Your task to perform on an android device: Search for Mexican restaurants on Maps Image 0: 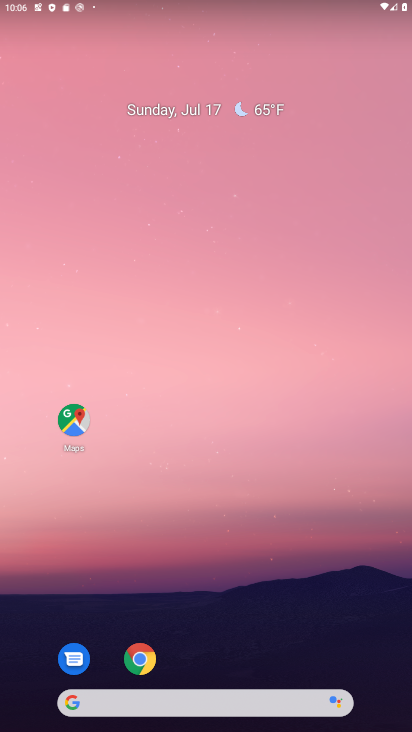
Step 0: click (69, 416)
Your task to perform on an android device: Search for Mexican restaurants on Maps Image 1: 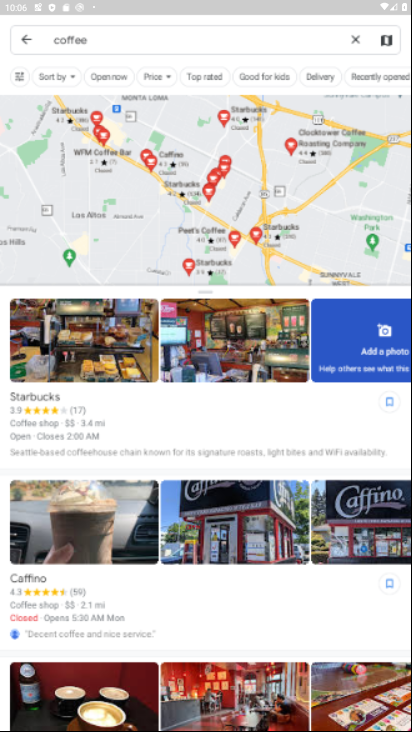
Step 1: click (359, 40)
Your task to perform on an android device: Search for Mexican restaurants on Maps Image 2: 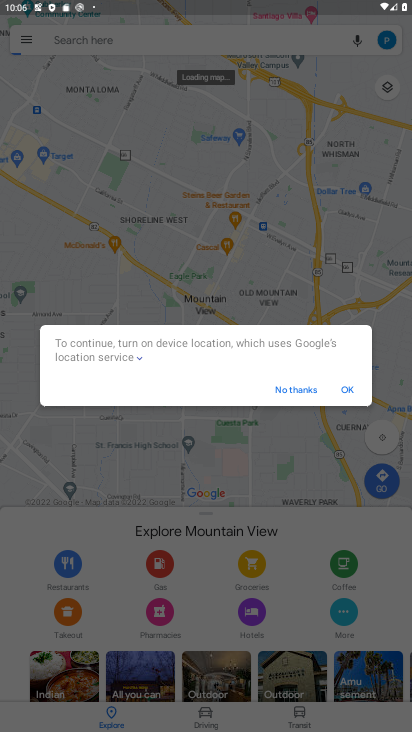
Step 2: click (345, 392)
Your task to perform on an android device: Search for Mexican restaurants on Maps Image 3: 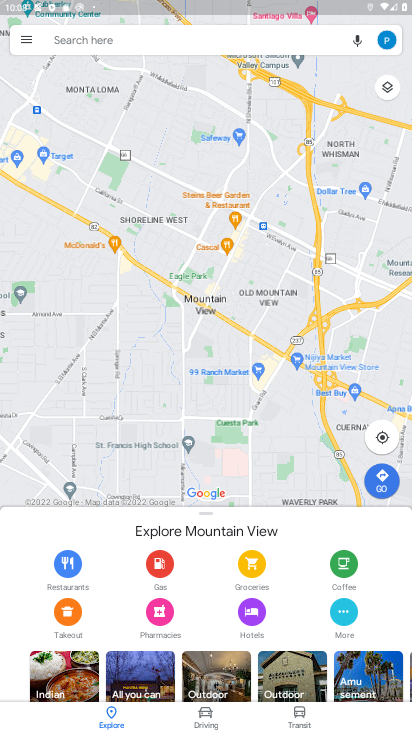
Step 3: click (155, 32)
Your task to perform on an android device: Search for Mexican restaurants on Maps Image 4: 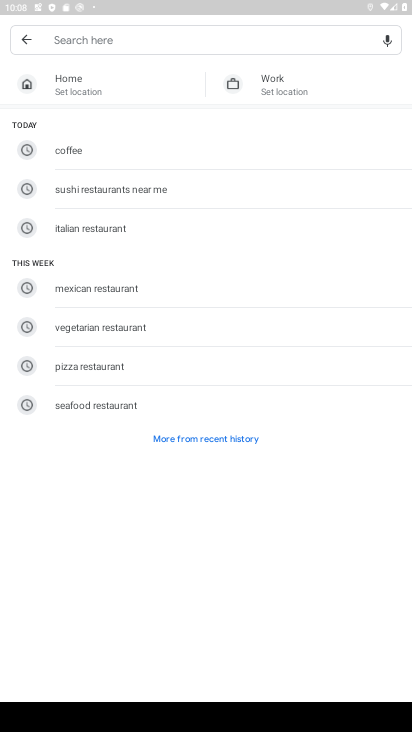
Step 4: click (151, 279)
Your task to perform on an android device: Search for Mexican restaurants on Maps Image 5: 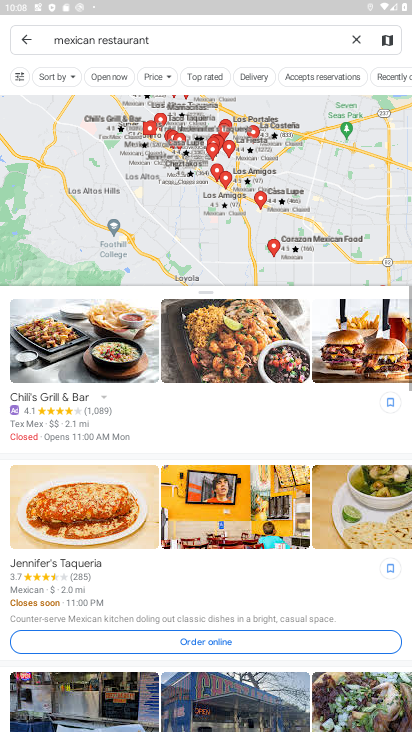
Step 5: task complete